Your task to perform on an android device: change your default location settings in chrome Image 0: 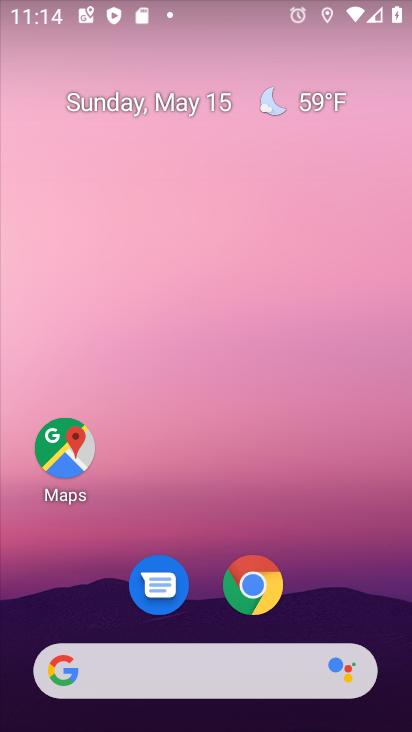
Step 0: drag from (288, 489) to (269, 40)
Your task to perform on an android device: change your default location settings in chrome Image 1: 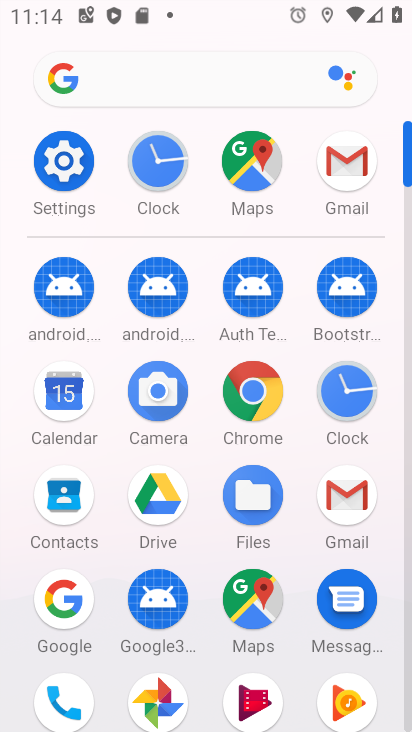
Step 1: click (255, 392)
Your task to perform on an android device: change your default location settings in chrome Image 2: 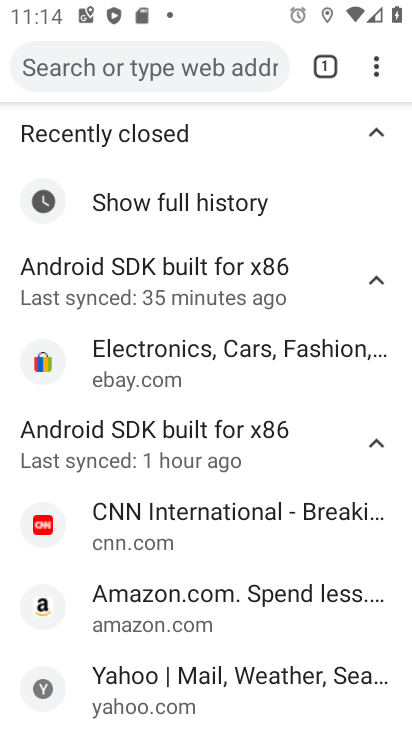
Step 2: click (373, 72)
Your task to perform on an android device: change your default location settings in chrome Image 3: 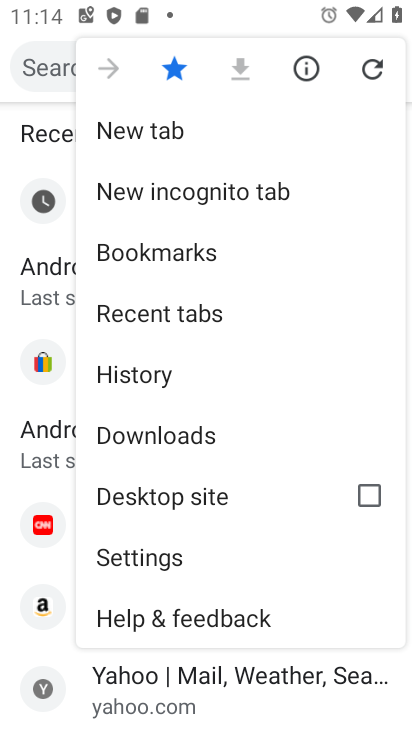
Step 3: click (177, 551)
Your task to perform on an android device: change your default location settings in chrome Image 4: 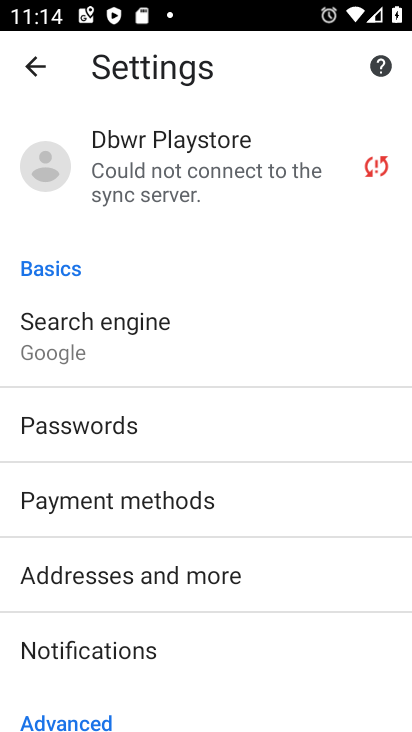
Step 4: drag from (259, 641) to (233, 233)
Your task to perform on an android device: change your default location settings in chrome Image 5: 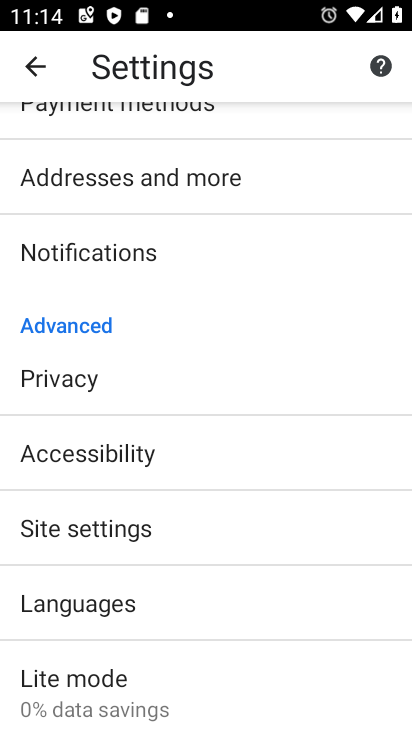
Step 5: click (198, 517)
Your task to perform on an android device: change your default location settings in chrome Image 6: 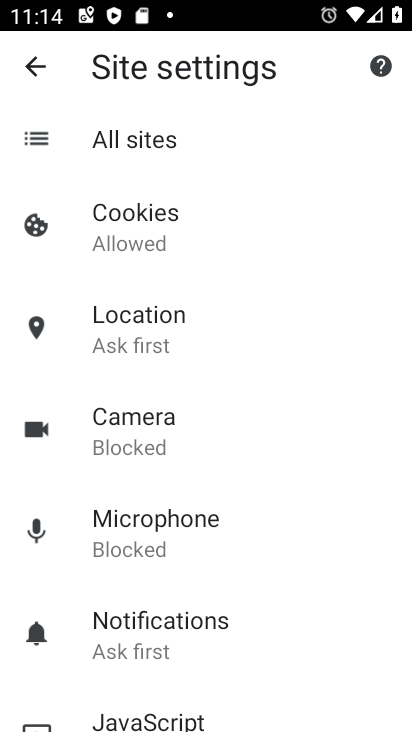
Step 6: click (186, 311)
Your task to perform on an android device: change your default location settings in chrome Image 7: 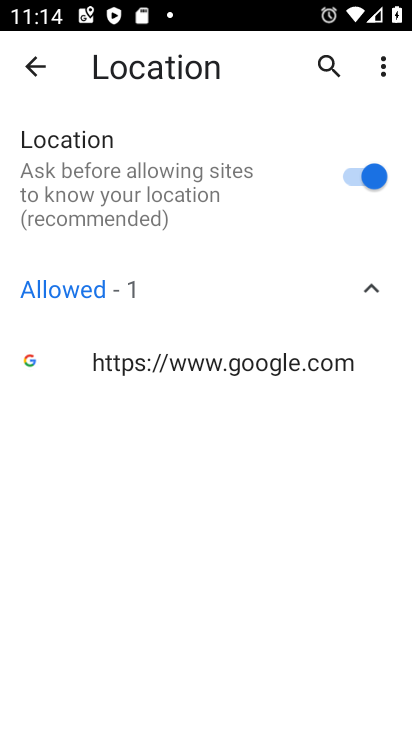
Step 7: click (348, 162)
Your task to perform on an android device: change your default location settings in chrome Image 8: 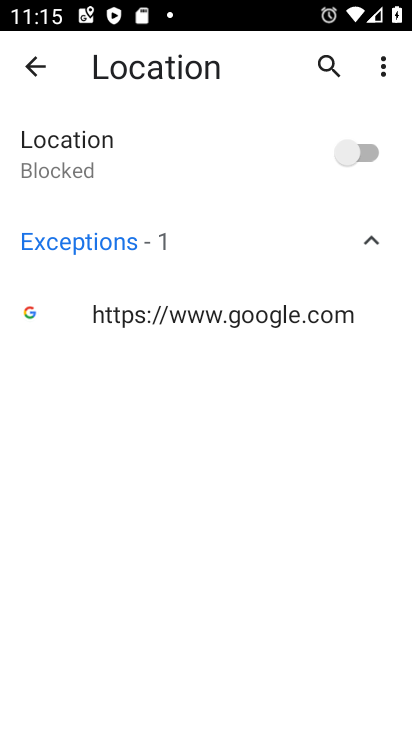
Step 8: task complete